Your task to perform on an android device: turn on improve location accuracy Image 0: 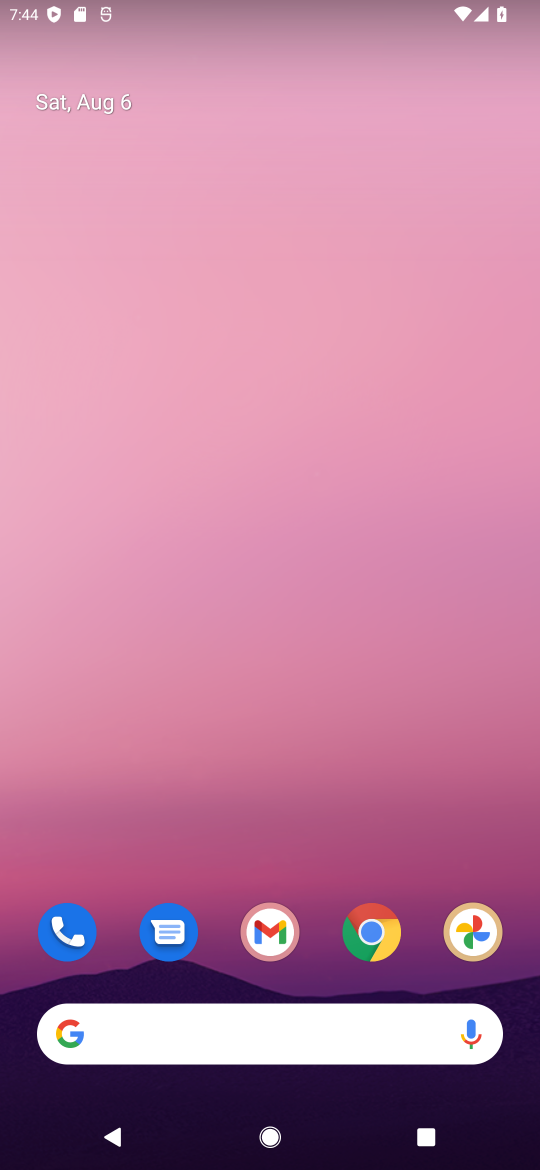
Step 0: drag from (269, 1028) to (459, 139)
Your task to perform on an android device: turn on improve location accuracy Image 1: 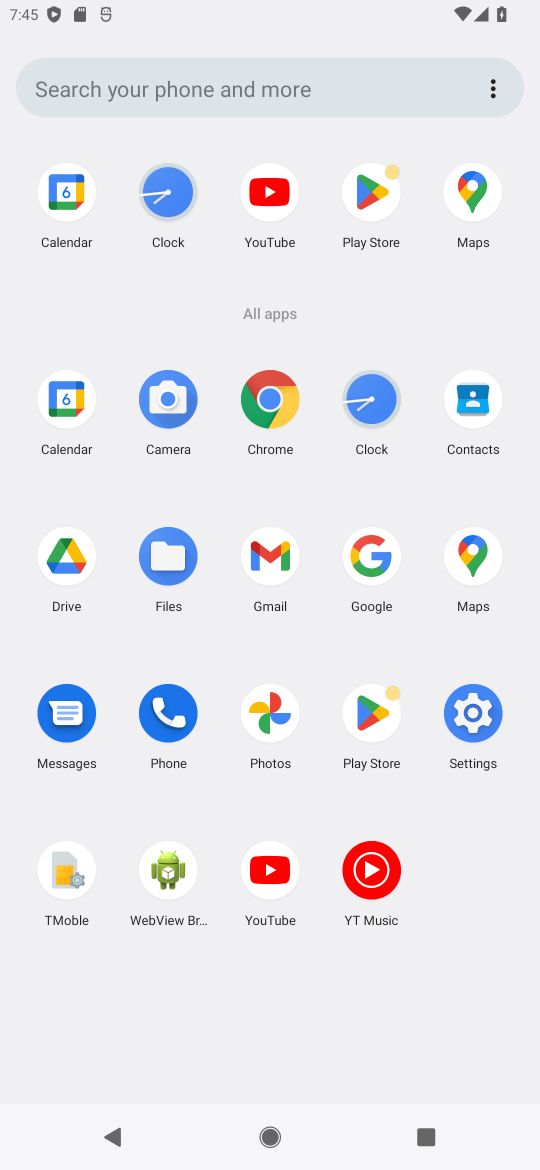
Step 1: click (485, 716)
Your task to perform on an android device: turn on improve location accuracy Image 2: 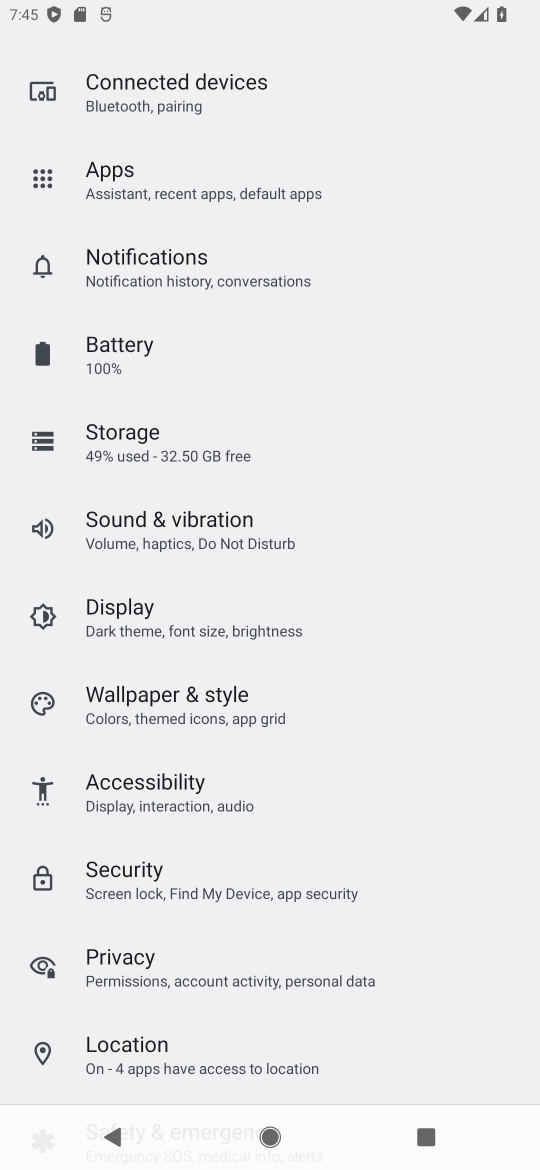
Step 2: drag from (355, 940) to (438, 574)
Your task to perform on an android device: turn on improve location accuracy Image 3: 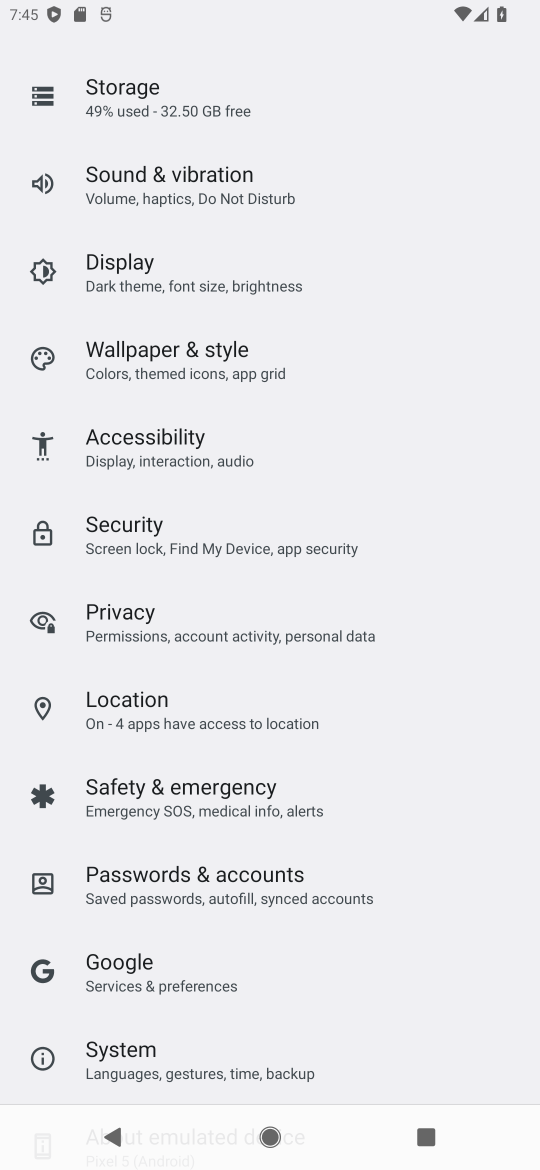
Step 3: click (246, 718)
Your task to perform on an android device: turn on improve location accuracy Image 4: 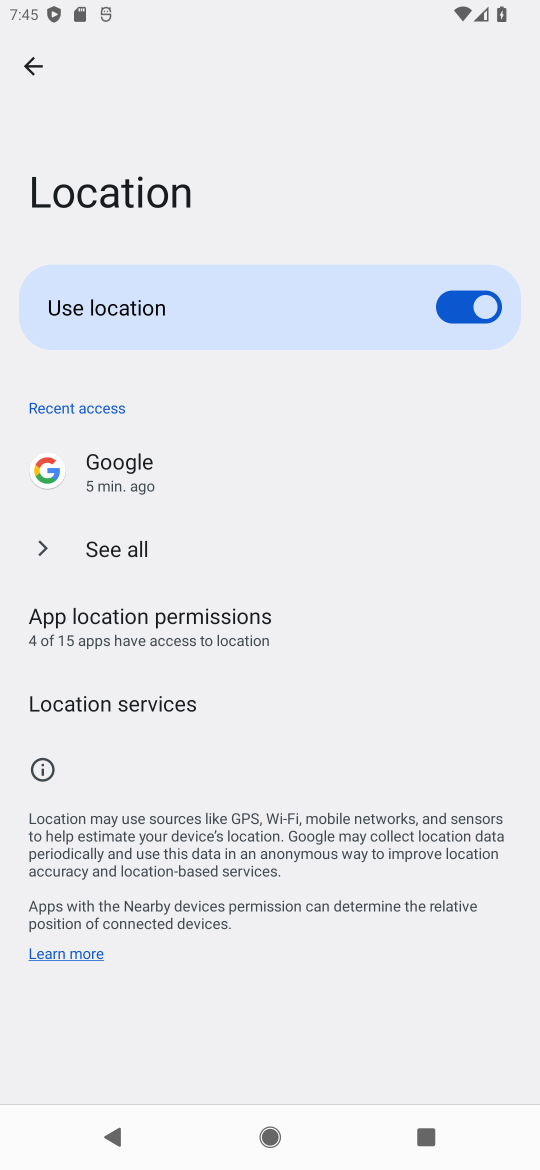
Step 4: click (136, 704)
Your task to perform on an android device: turn on improve location accuracy Image 5: 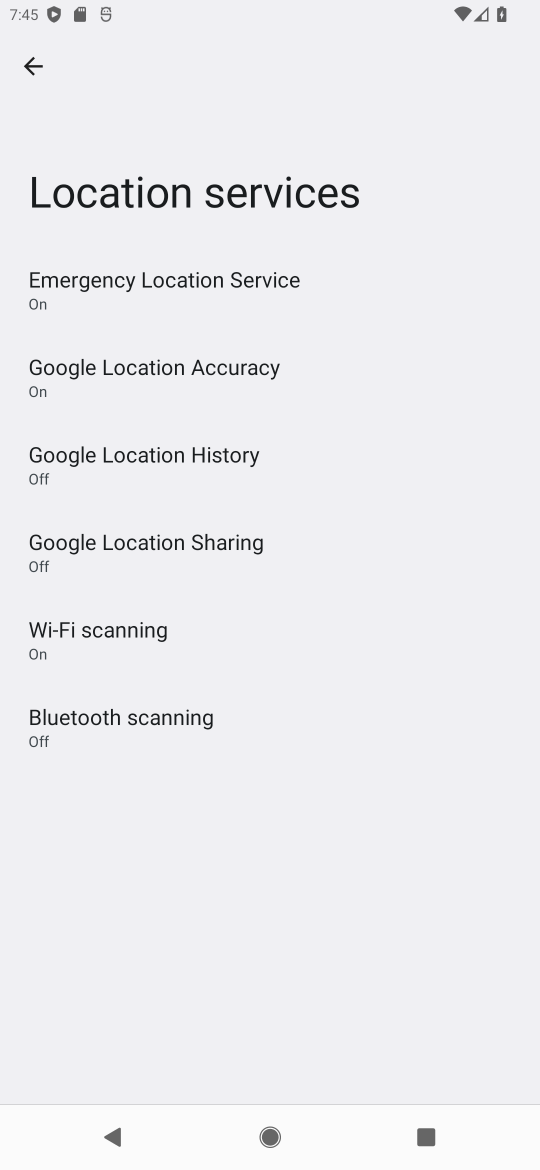
Step 5: click (210, 370)
Your task to perform on an android device: turn on improve location accuracy Image 6: 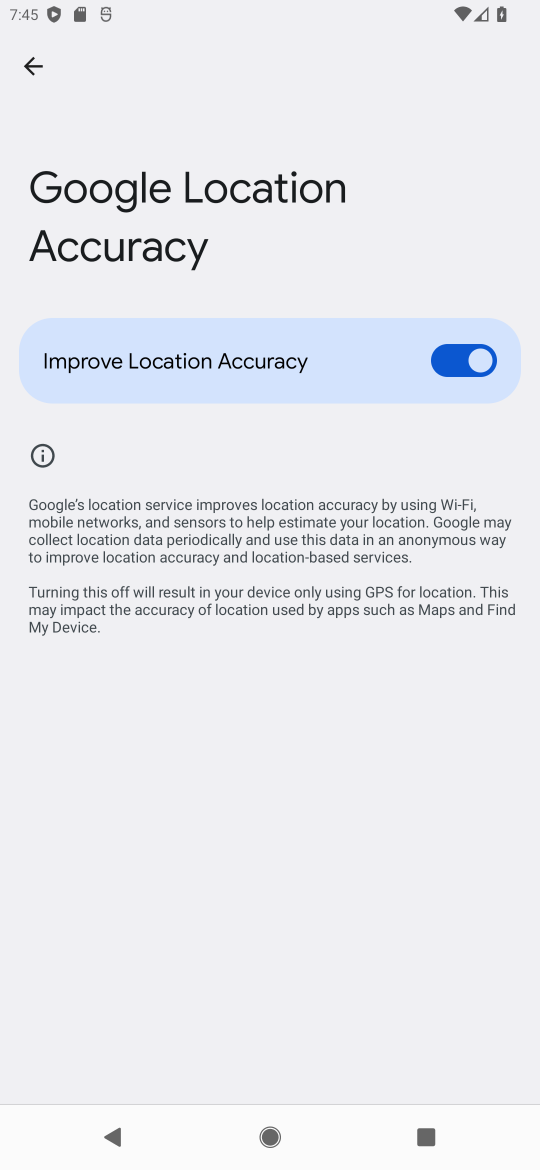
Step 6: task complete